Your task to perform on an android device: turn smart compose on in the gmail app Image 0: 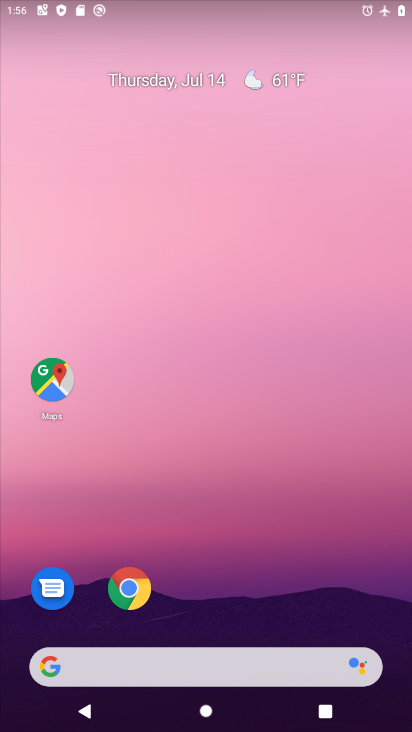
Step 0: click (316, 193)
Your task to perform on an android device: turn smart compose on in the gmail app Image 1: 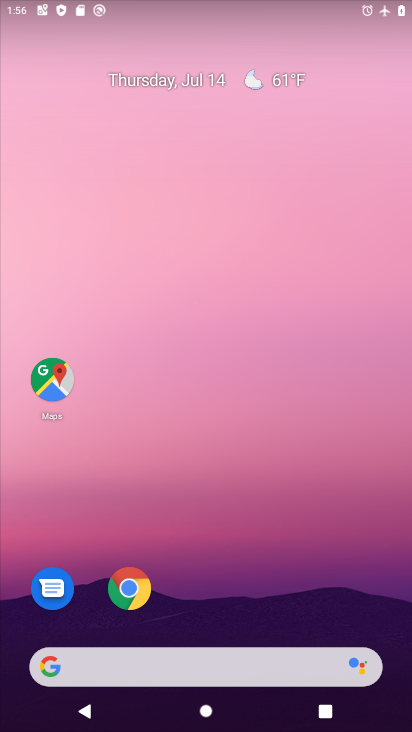
Step 1: drag from (216, 623) to (211, 264)
Your task to perform on an android device: turn smart compose on in the gmail app Image 2: 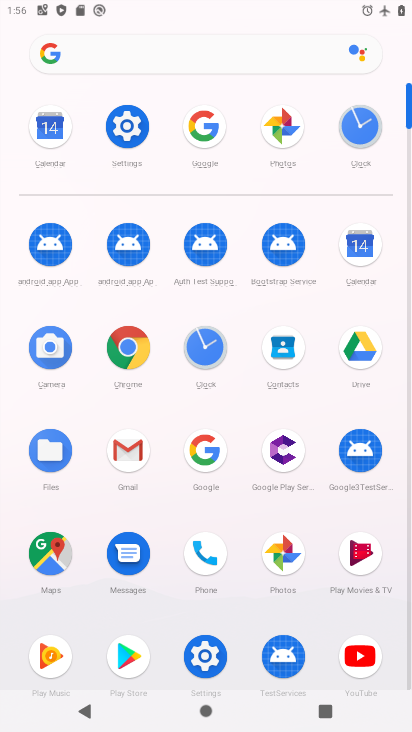
Step 2: click (141, 446)
Your task to perform on an android device: turn smart compose on in the gmail app Image 3: 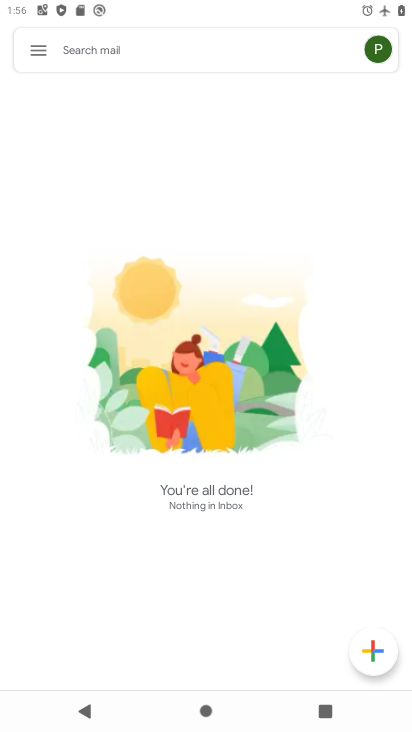
Step 3: click (30, 45)
Your task to perform on an android device: turn smart compose on in the gmail app Image 4: 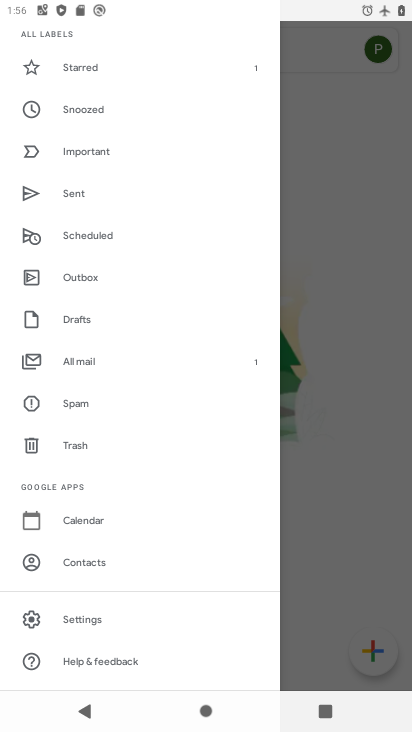
Step 4: click (86, 617)
Your task to perform on an android device: turn smart compose on in the gmail app Image 5: 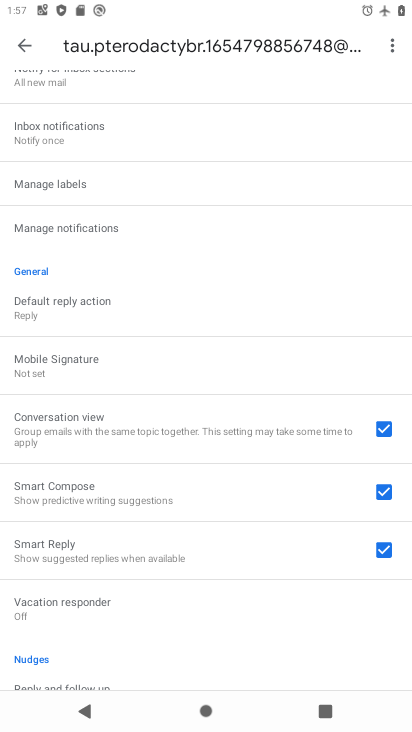
Step 5: task complete